Your task to perform on an android device: open app "ZOOM Cloud Meetings" (install if not already installed), go to login, and select forgot password Image 0: 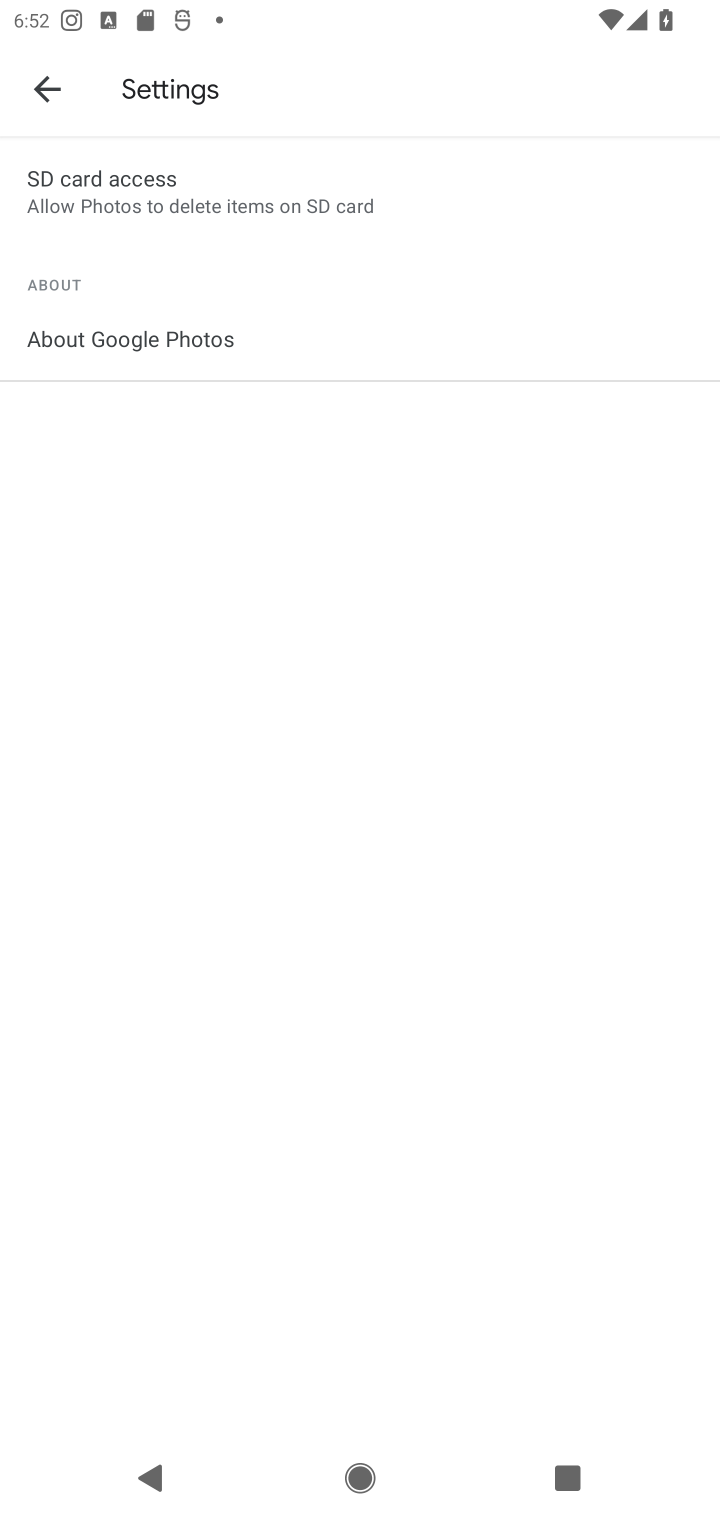
Step 0: press home button
Your task to perform on an android device: open app "ZOOM Cloud Meetings" (install if not already installed), go to login, and select forgot password Image 1: 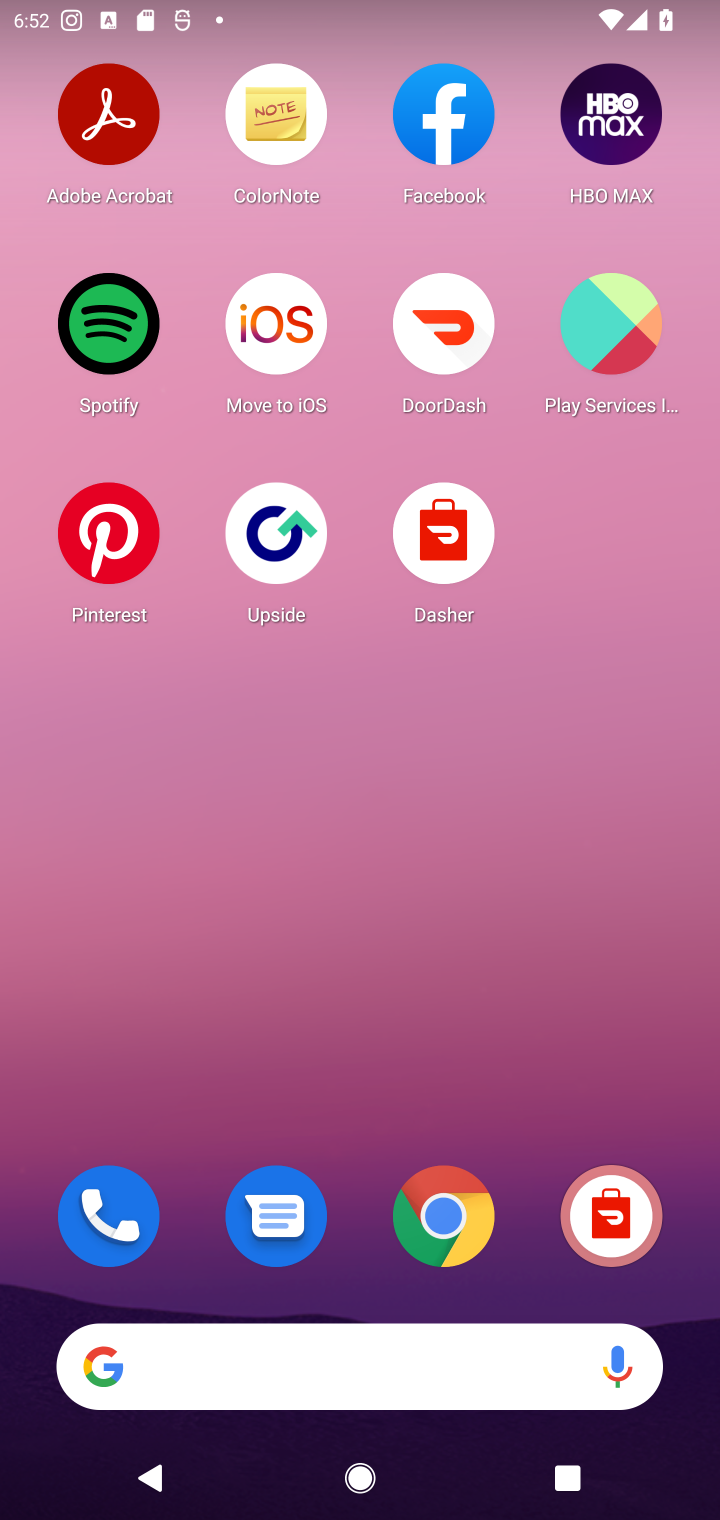
Step 1: drag from (379, 1065) to (349, 76)
Your task to perform on an android device: open app "ZOOM Cloud Meetings" (install if not already installed), go to login, and select forgot password Image 2: 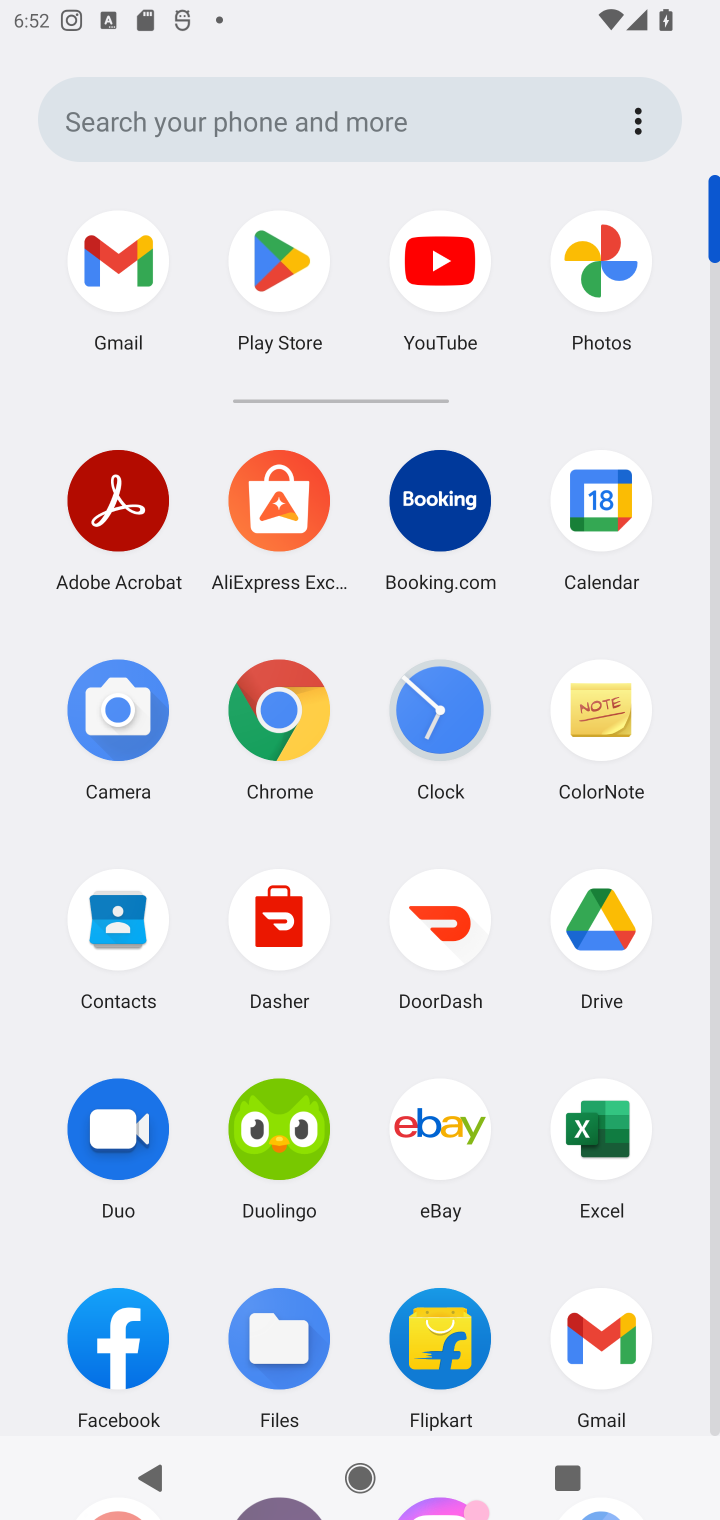
Step 2: drag from (363, 1235) to (430, 516)
Your task to perform on an android device: open app "ZOOM Cloud Meetings" (install if not already installed), go to login, and select forgot password Image 3: 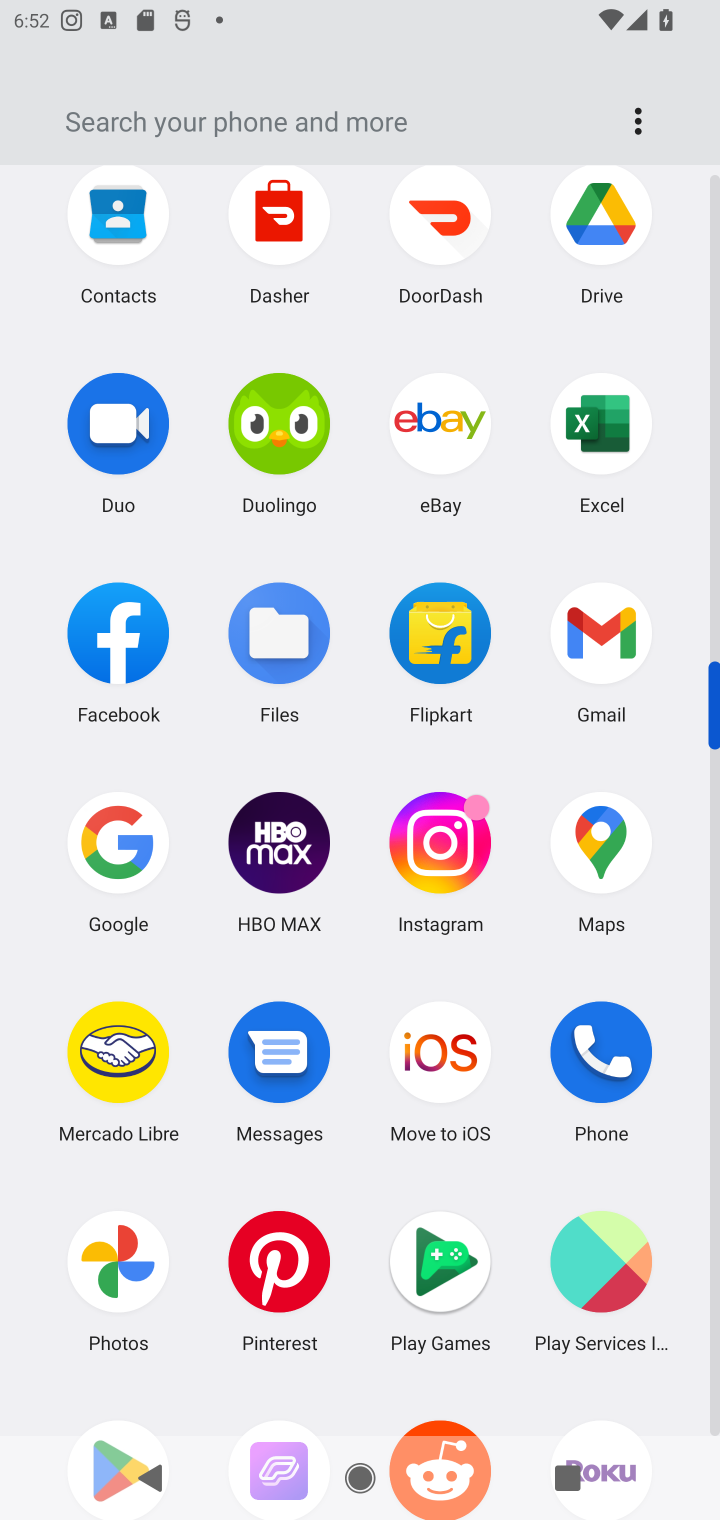
Step 3: drag from (418, 644) to (416, 1257)
Your task to perform on an android device: open app "ZOOM Cloud Meetings" (install if not already installed), go to login, and select forgot password Image 4: 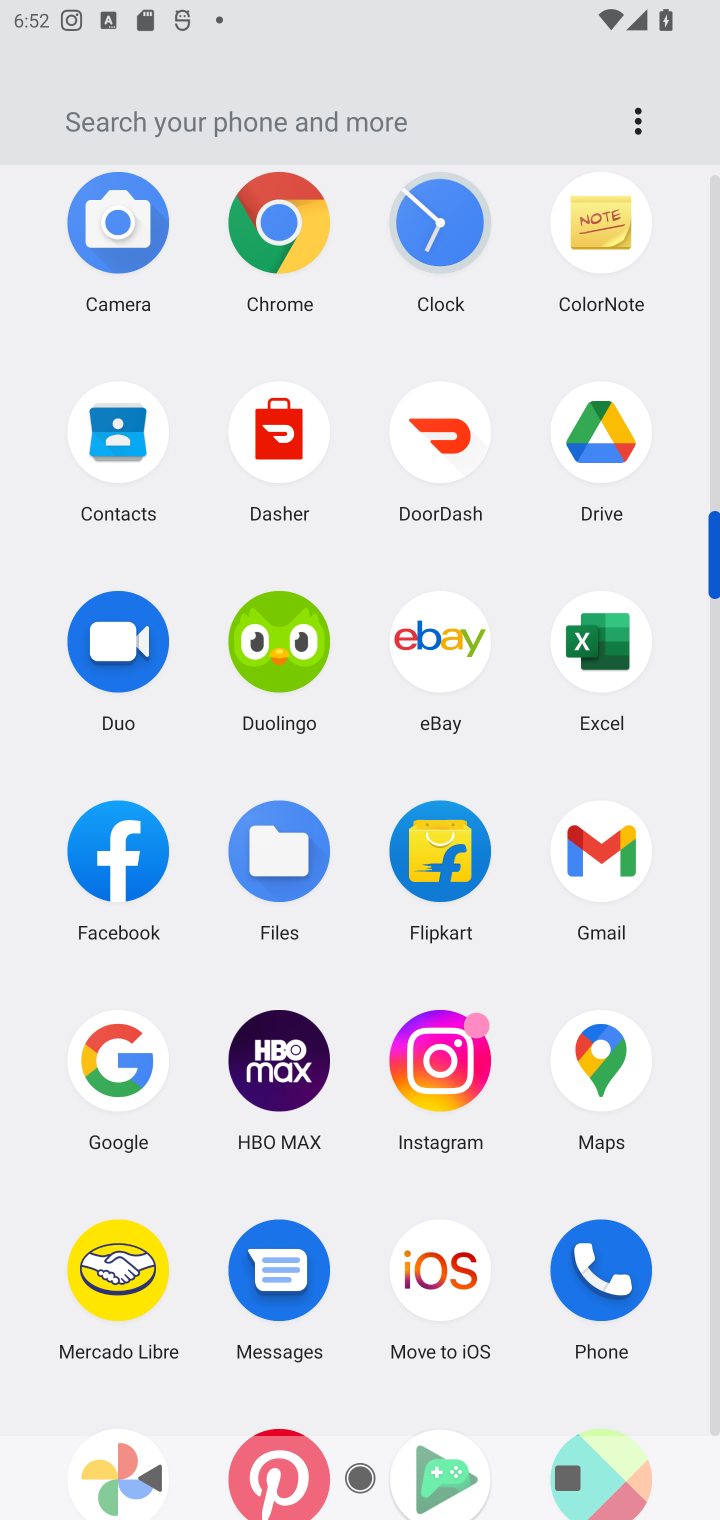
Step 4: drag from (348, 568) to (350, 1126)
Your task to perform on an android device: open app "ZOOM Cloud Meetings" (install if not already installed), go to login, and select forgot password Image 5: 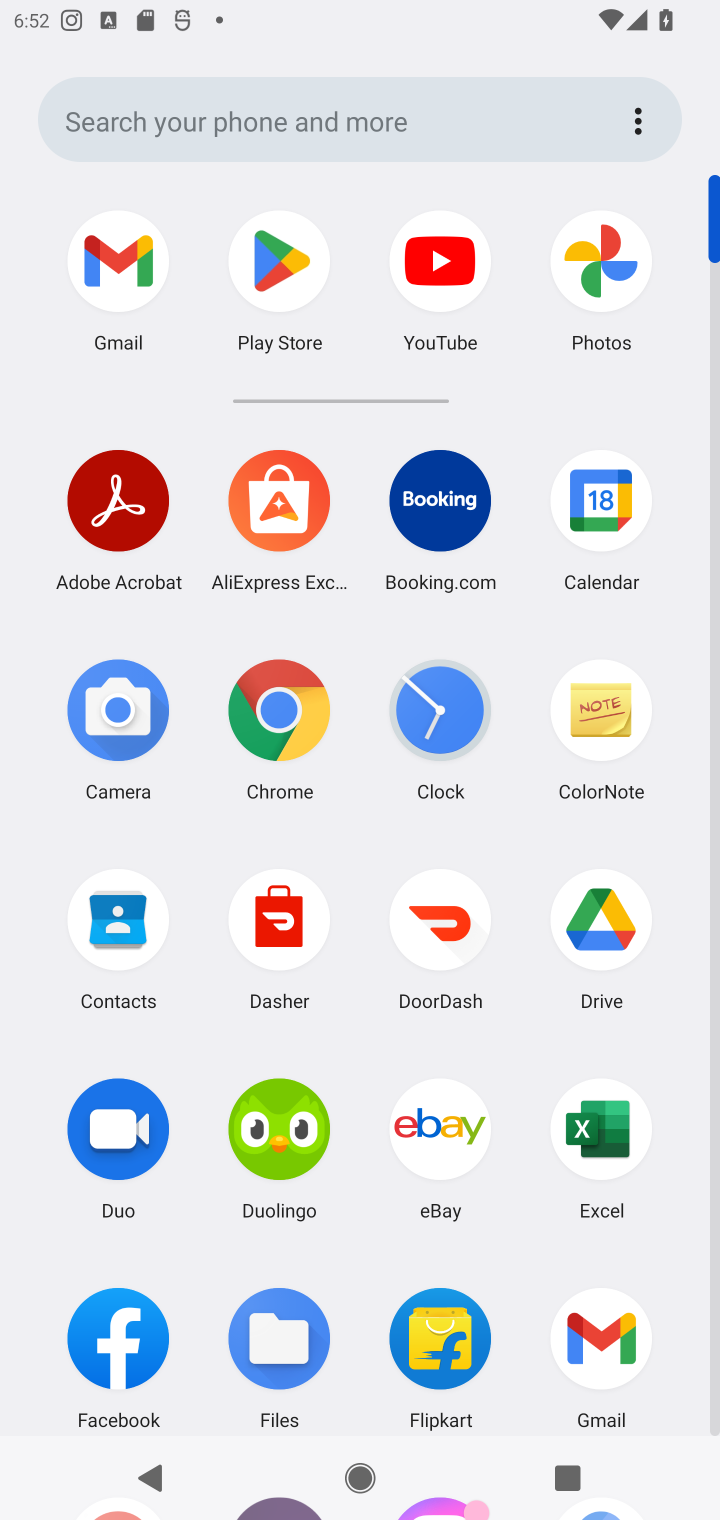
Step 5: click (254, 290)
Your task to perform on an android device: open app "ZOOM Cloud Meetings" (install if not already installed), go to login, and select forgot password Image 6: 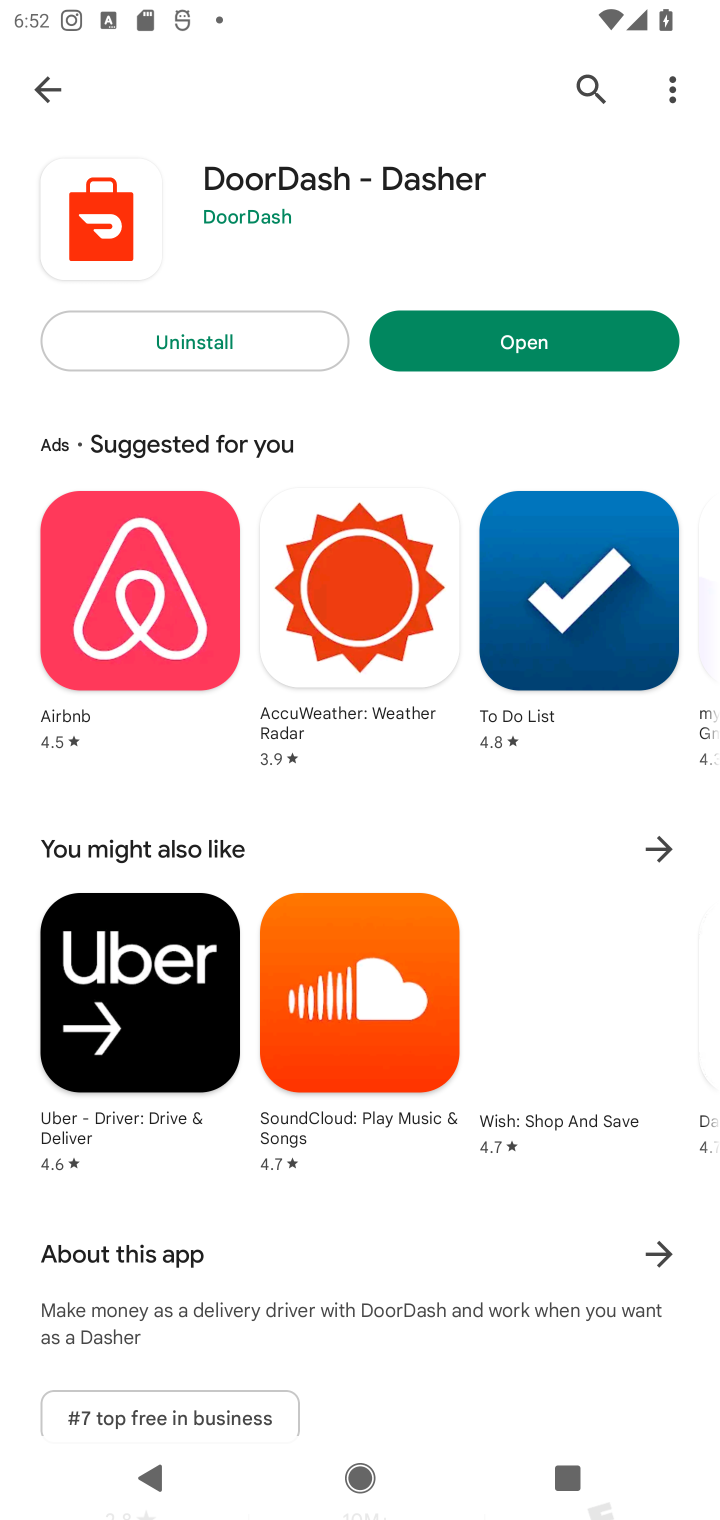
Step 6: click (600, 85)
Your task to perform on an android device: open app "ZOOM Cloud Meetings" (install if not already installed), go to login, and select forgot password Image 7: 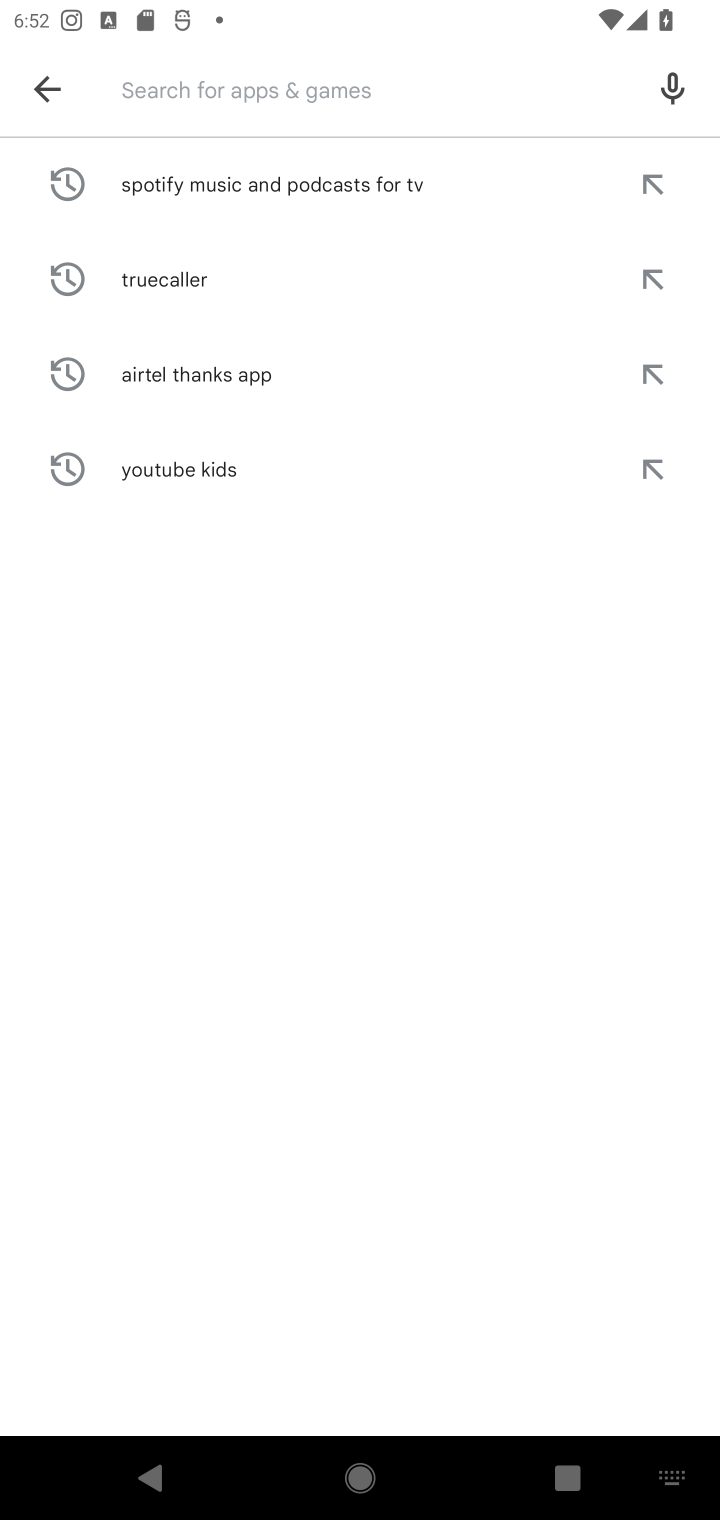
Step 7: type "ZOOM Cloud Meetings"
Your task to perform on an android device: open app "ZOOM Cloud Meetings" (install if not already installed), go to login, and select forgot password Image 8: 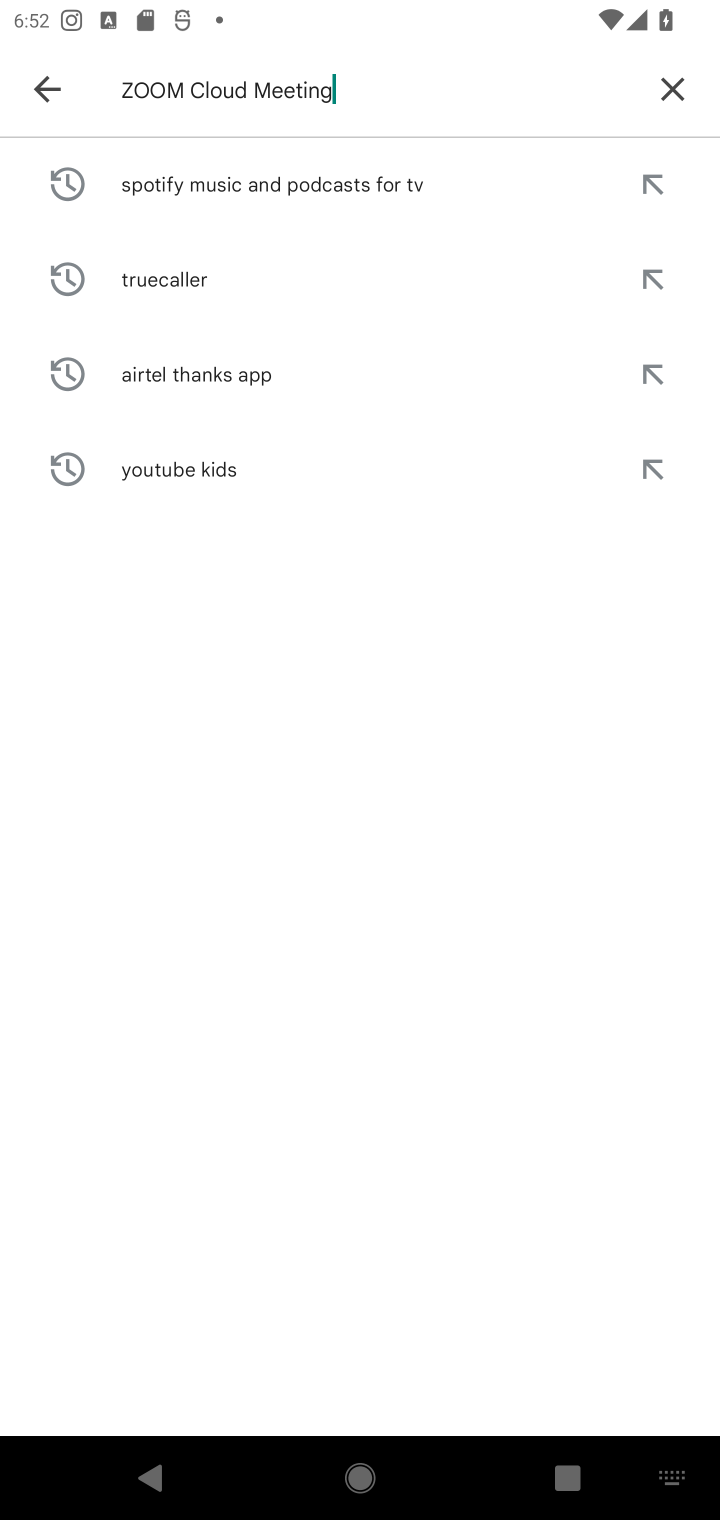
Step 8: type ""
Your task to perform on an android device: open app "ZOOM Cloud Meetings" (install if not already installed), go to login, and select forgot password Image 9: 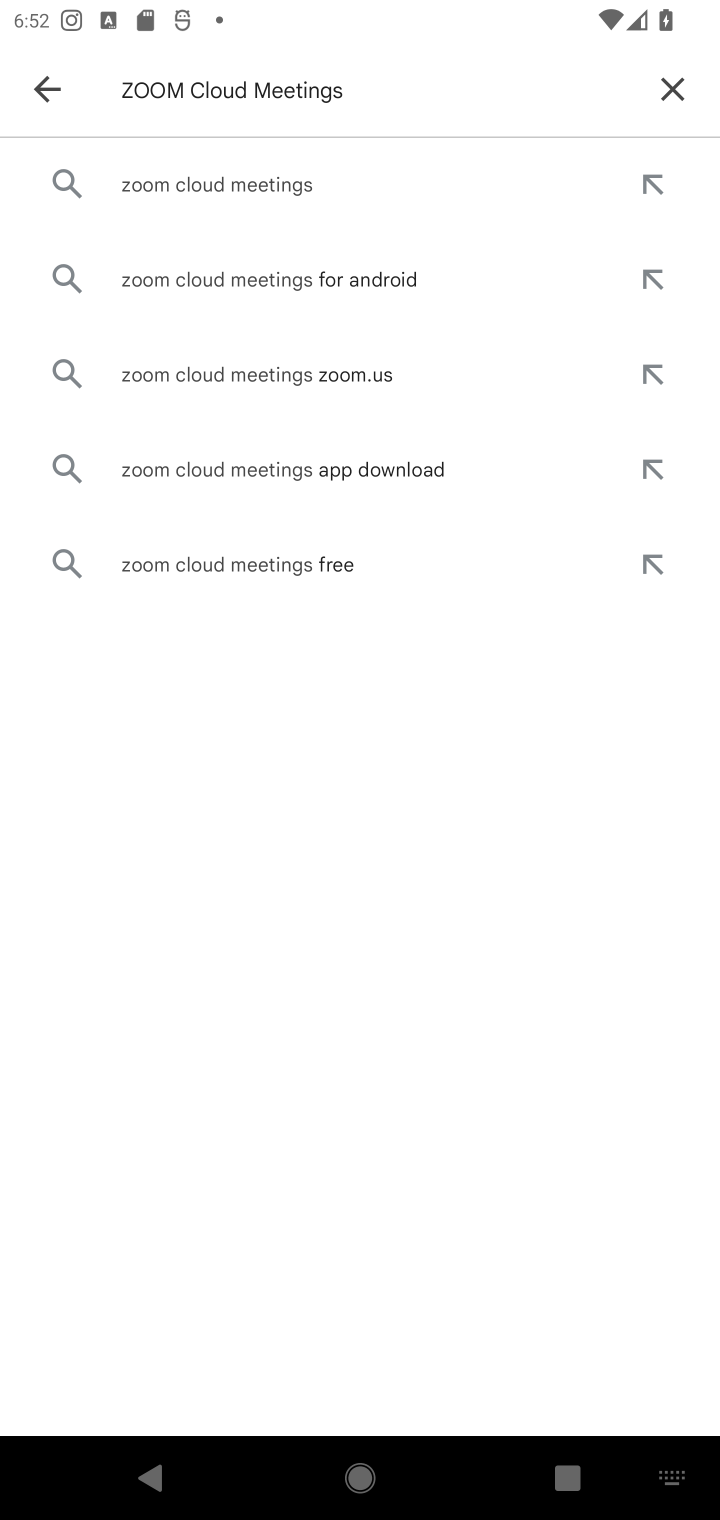
Step 9: click (406, 167)
Your task to perform on an android device: open app "ZOOM Cloud Meetings" (install if not already installed), go to login, and select forgot password Image 10: 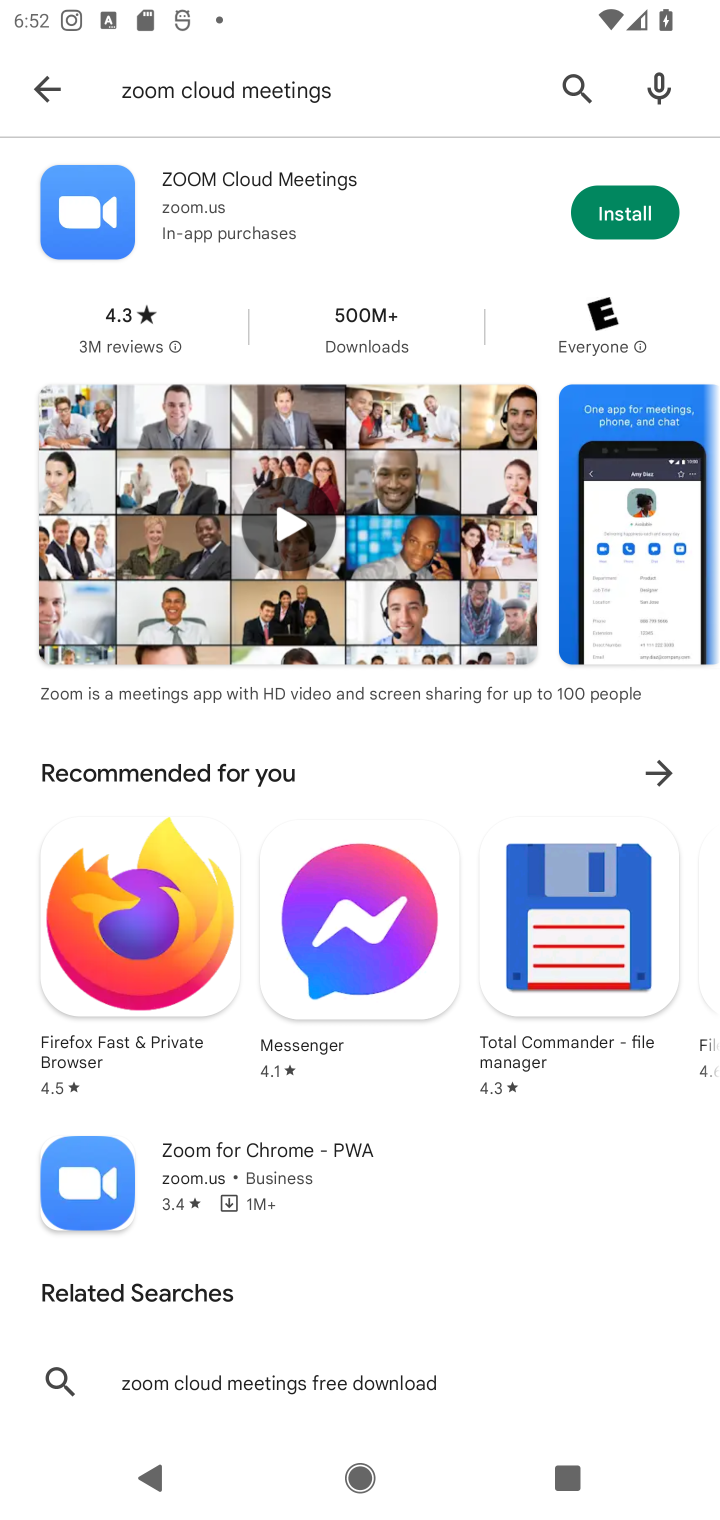
Step 10: click (645, 220)
Your task to perform on an android device: open app "ZOOM Cloud Meetings" (install if not already installed), go to login, and select forgot password Image 11: 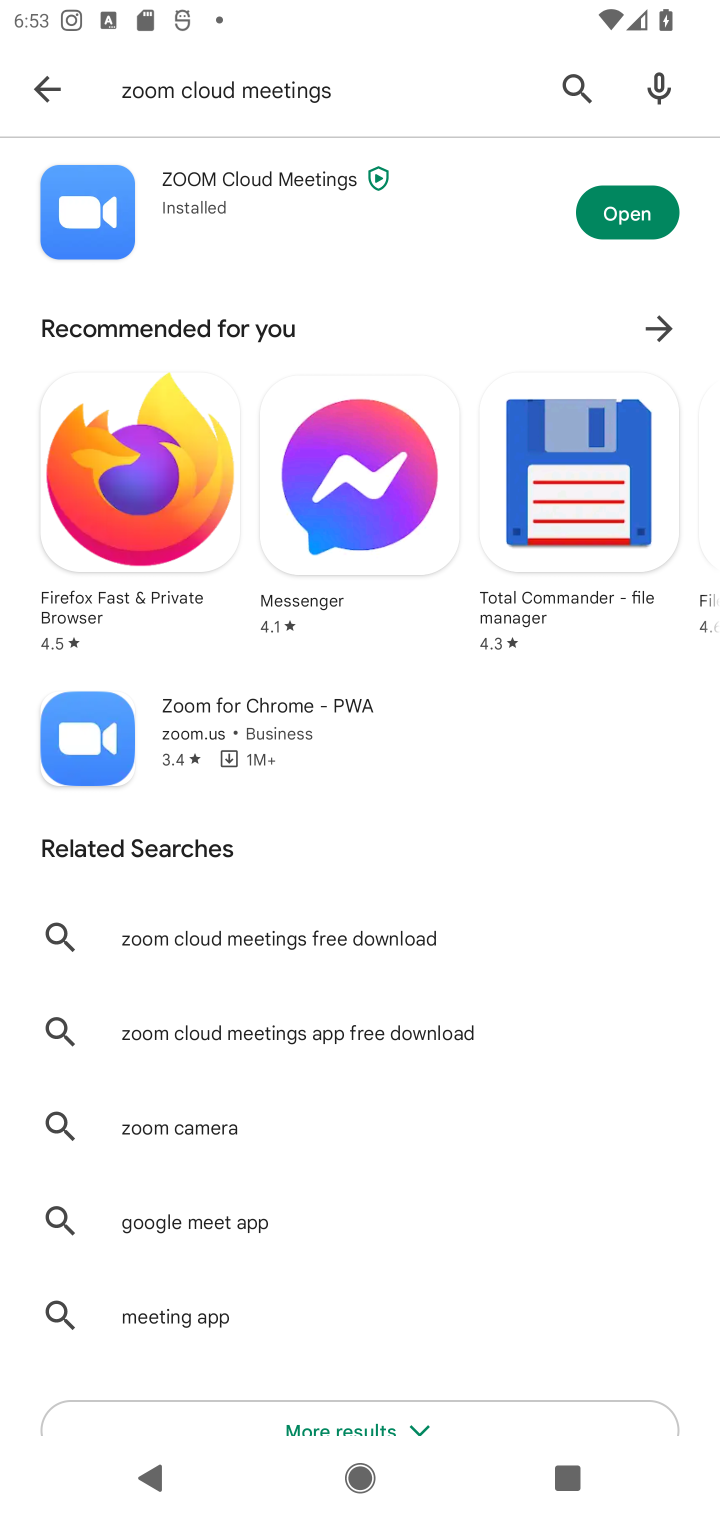
Step 11: click (645, 220)
Your task to perform on an android device: open app "ZOOM Cloud Meetings" (install if not already installed), go to login, and select forgot password Image 12: 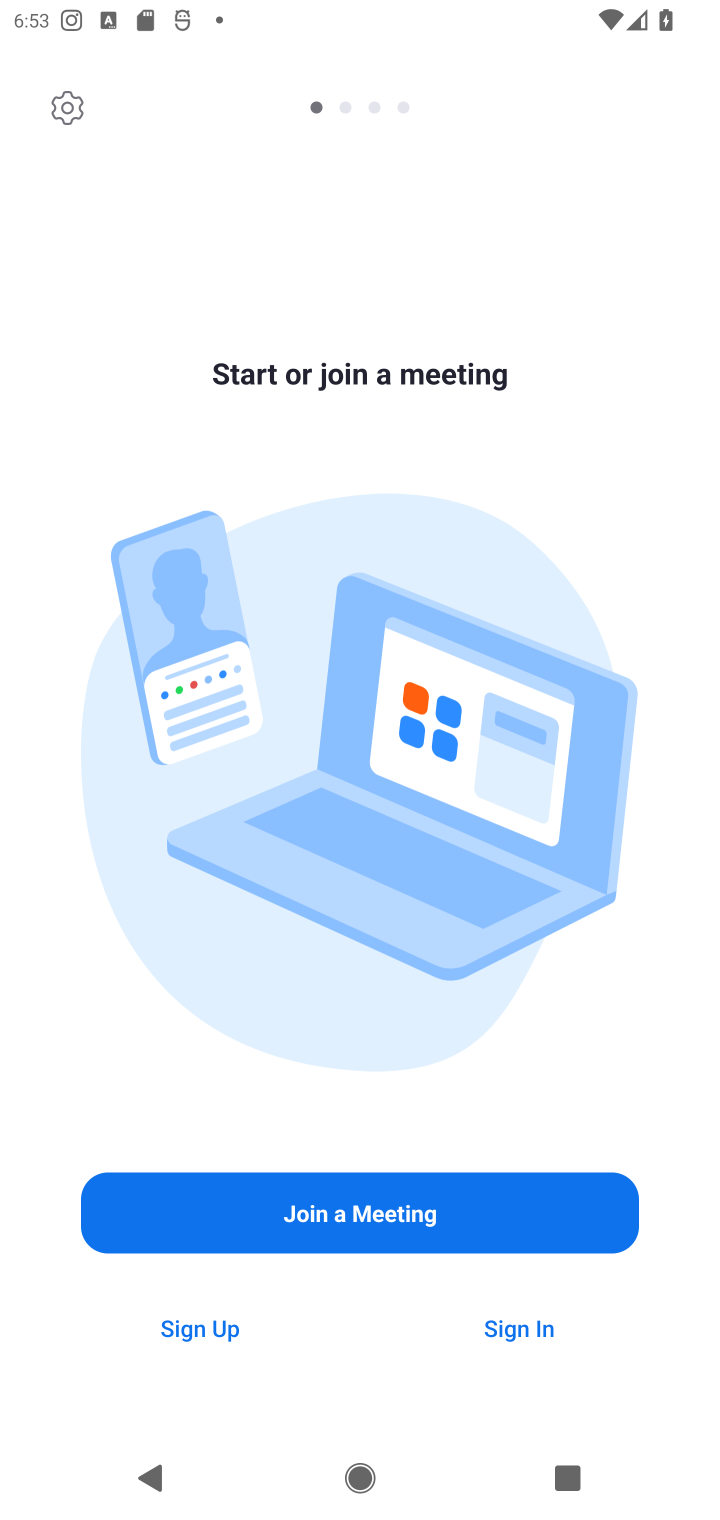
Step 12: task complete